Your task to perform on an android device: open device folders in google photos Image 0: 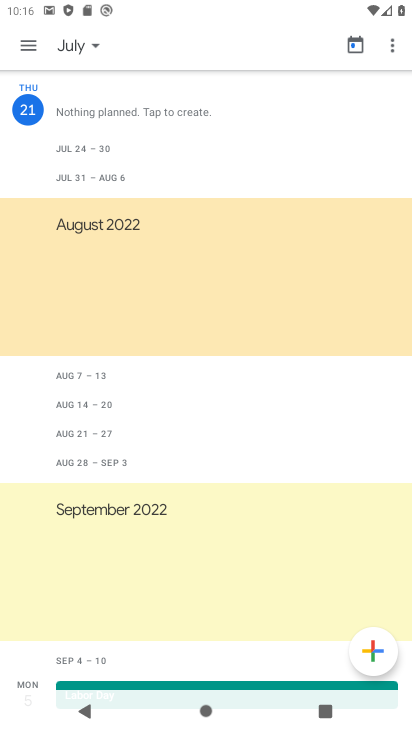
Step 0: press home button
Your task to perform on an android device: open device folders in google photos Image 1: 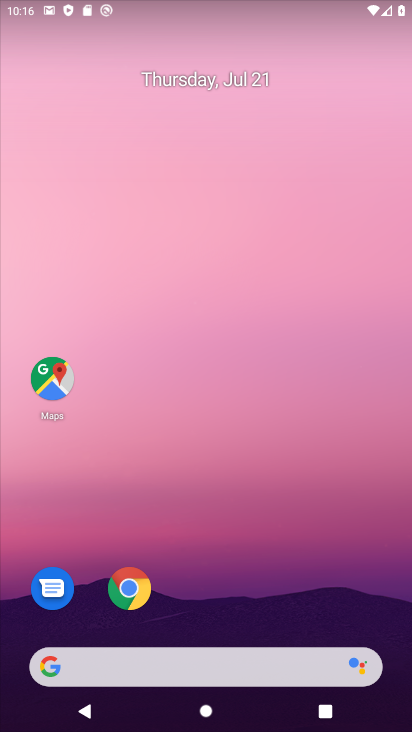
Step 1: drag from (186, 612) to (308, 36)
Your task to perform on an android device: open device folders in google photos Image 2: 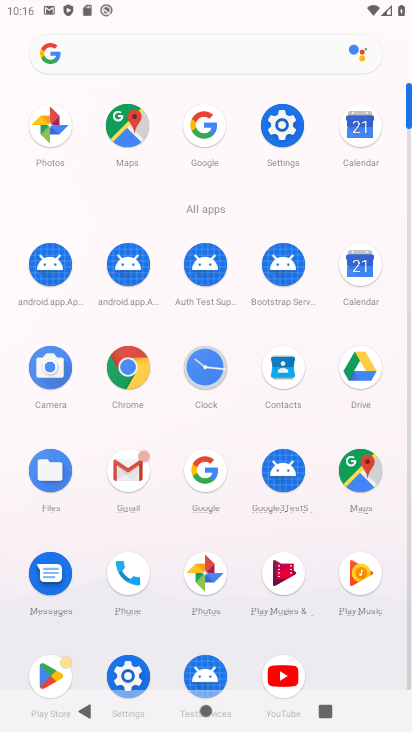
Step 2: click (210, 578)
Your task to perform on an android device: open device folders in google photos Image 3: 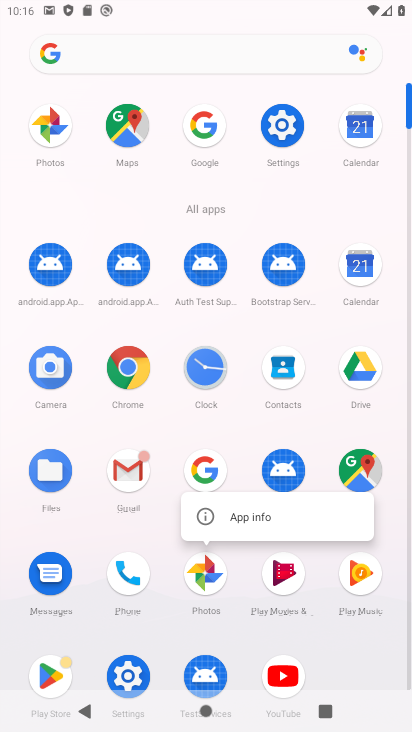
Step 3: click (255, 512)
Your task to perform on an android device: open device folders in google photos Image 4: 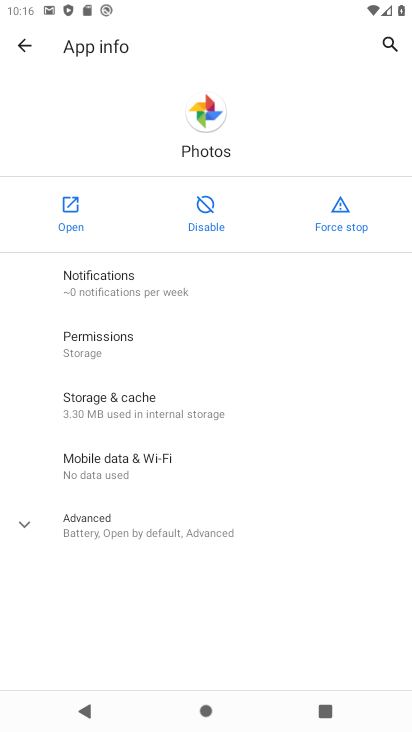
Step 4: click (60, 204)
Your task to perform on an android device: open device folders in google photos Image 5: 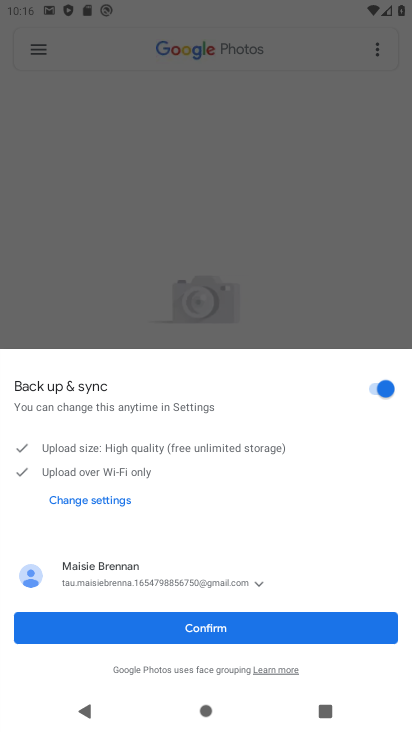
Step 5: click (169, 627)
Your task to perform on an android device: open device folders in google photos Image 6: 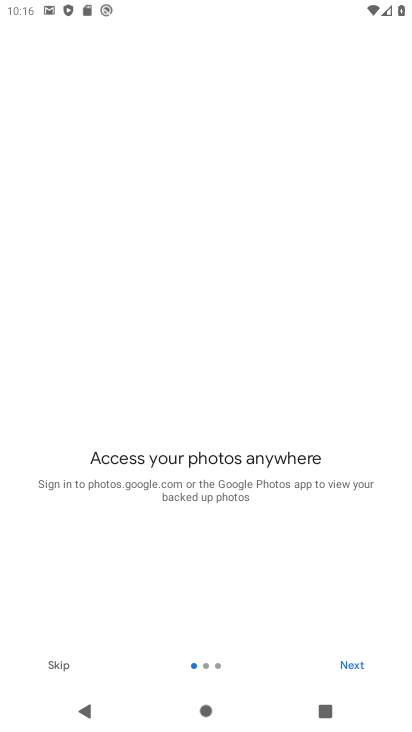
Step 6: click (52, 665)
Your task to perform on an android device: open device folders in google photos Image 7: 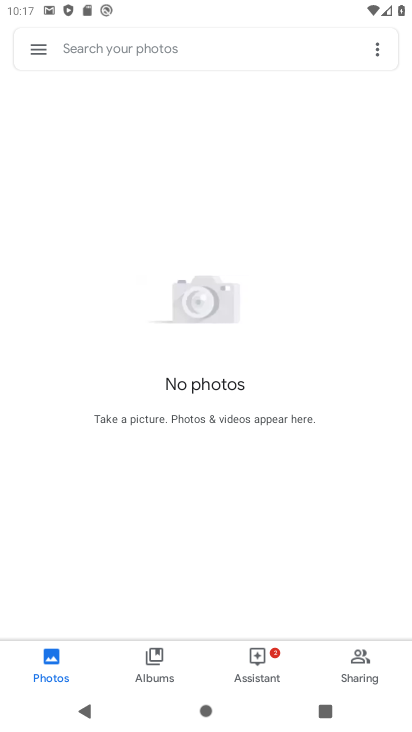
Step 7: click (36, 51)
Your task to perform on an android device: open device folders in google photos Image 8: 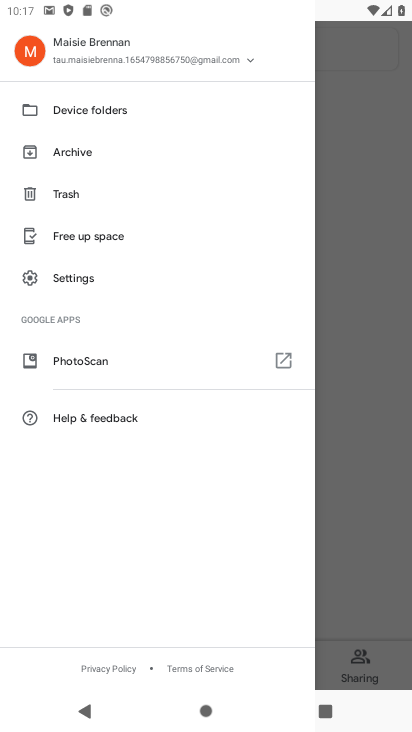
Step 8: click (80, 113)
Your task to perform on an android device: open device folders in google photos Image 9: 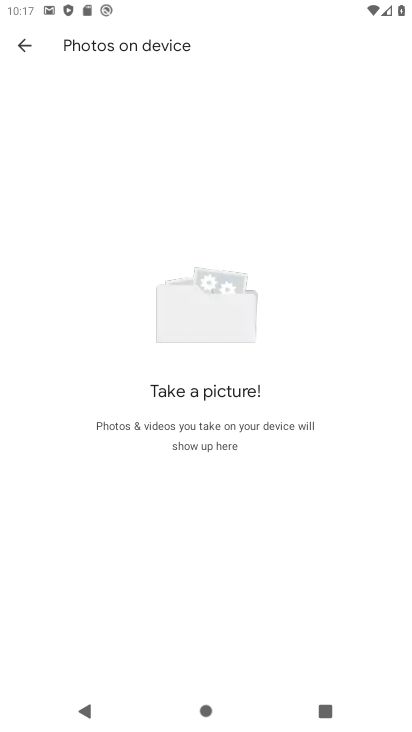
Step 9: task complete